Your task to perform on an android device: see sites visited before in the chrome app Image 0: 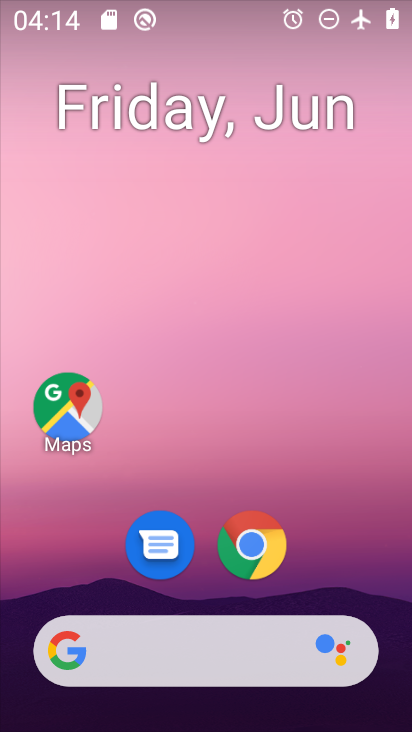
Step 0: click (274, 539)
Your task to perform on an android device: see sites visited before in the chrome app Image 1: 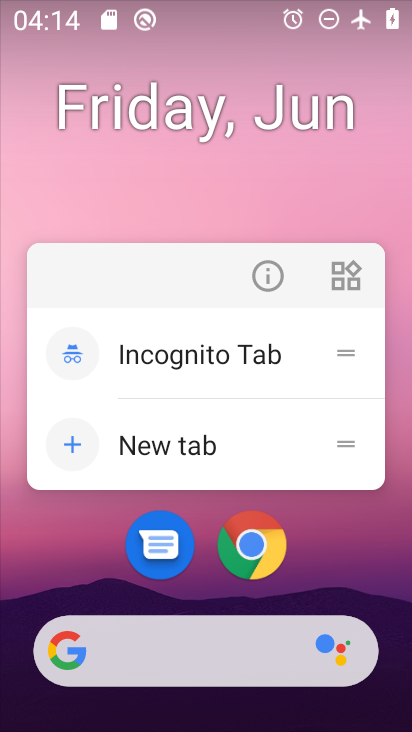
Step 1: click (245, 553)
Your task to perform on an android device: see sites visited before in the chrome app Image 2: 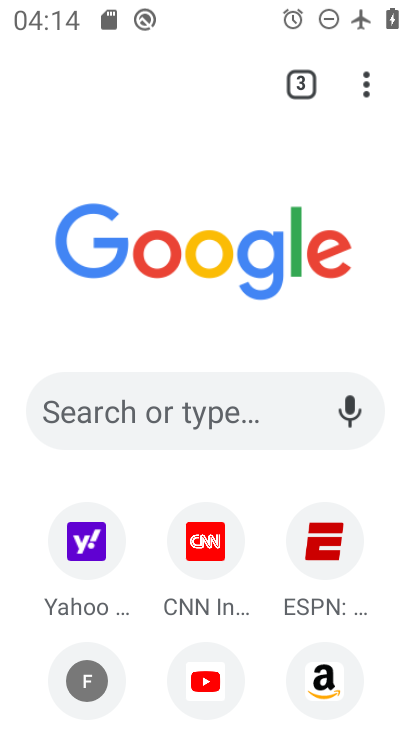
Step 2: click (370, 78)
Your task to perform on an android device: see sites visited before in the chrome app Image 3: 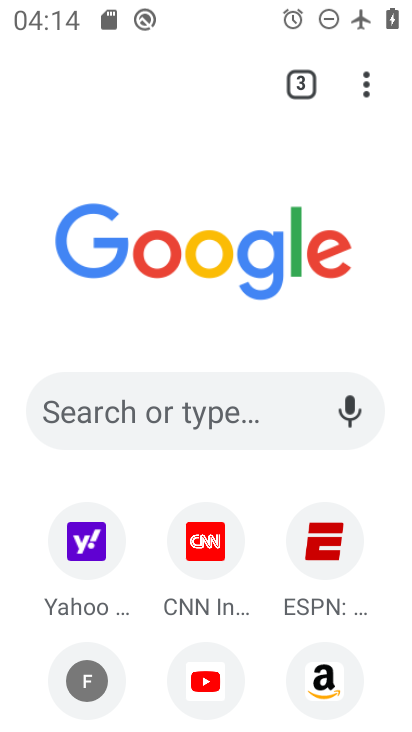
Step 3: click (370, 78)
Your task to perform on an android device: see sites visited before in the chrome app Image 4: 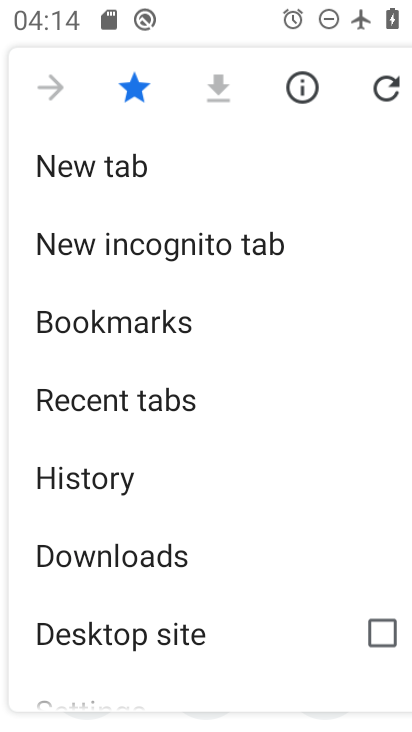
Step 4: click (80, 466)
Your task to perform on an android device: see sites visited before in the chrome app Image 5: 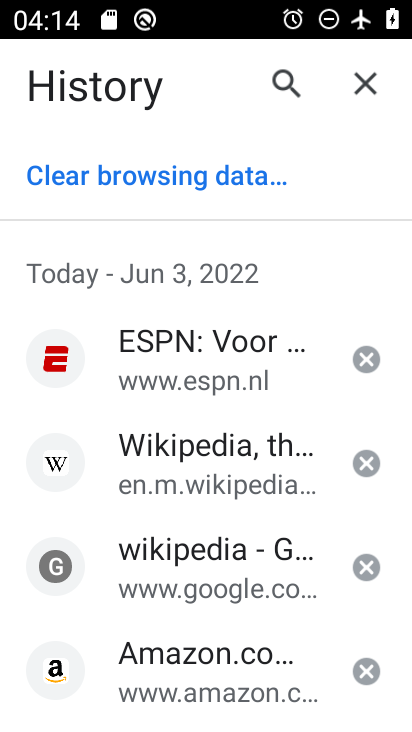
Step 5: task complete